Your task to perform on an android device: Show me productivity apps on the Play Store Image 0: 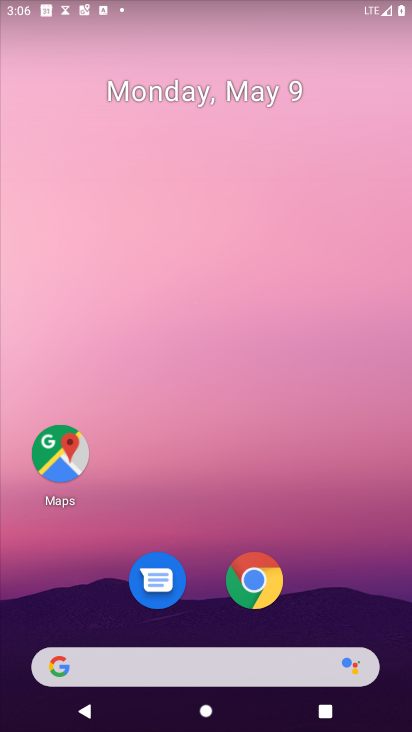
Step 0: drag from (339, 607) to (200, 120)
Your task to perform on an android device: Show me productivity apps on the Play Store Image 1: 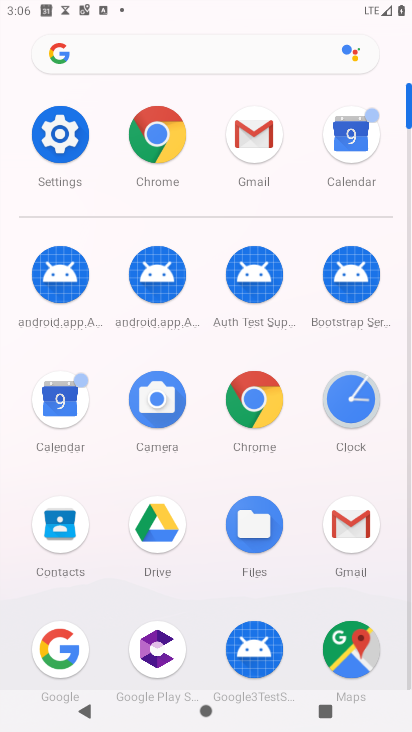
Step 1: drag from (235, 536) to (223, 251)
Your task to perform on an android device: Show me productivity apps on the Play Store Image 2: 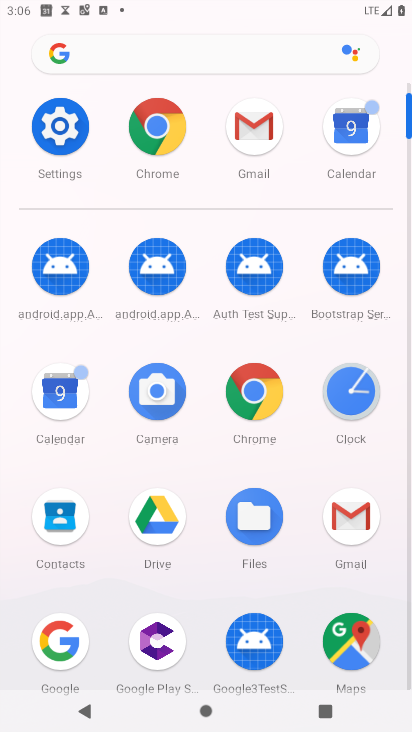
Step 2: drag from (190, 645) to (188, 318)
Your task to perform on an android device: Show me productivity apps on the Play Store Image 3: 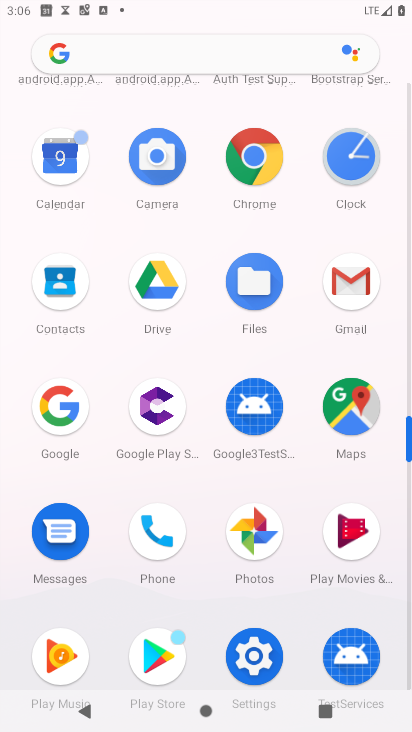
Step 3: click (155, 652)
Your task to perform on an android device: Show me productivity apps on the Play Store Image 4: 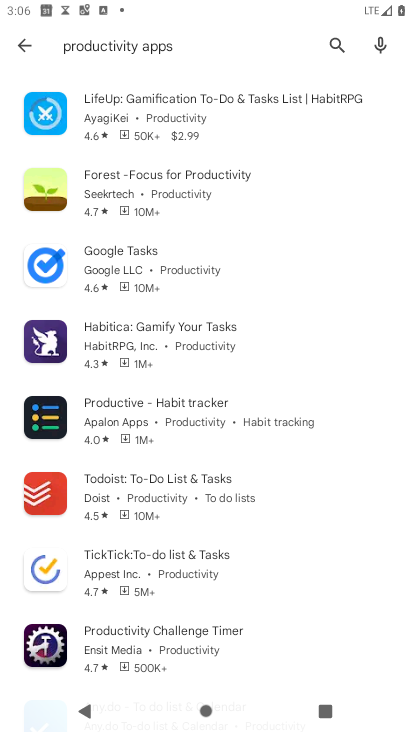
Step 4: task complete